Your task to perform on an android device: turn off improve location accuracy Image 0: 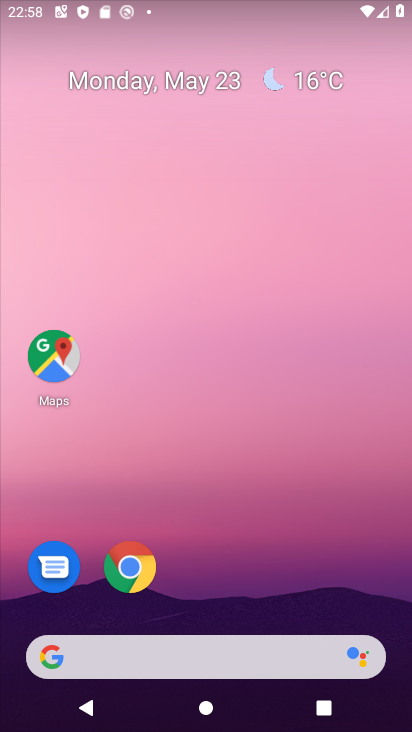
Step 0: drag from (247, 590) to (241, 205)
Your task to perform on an android device: turn off improve location accuracy Image 1: 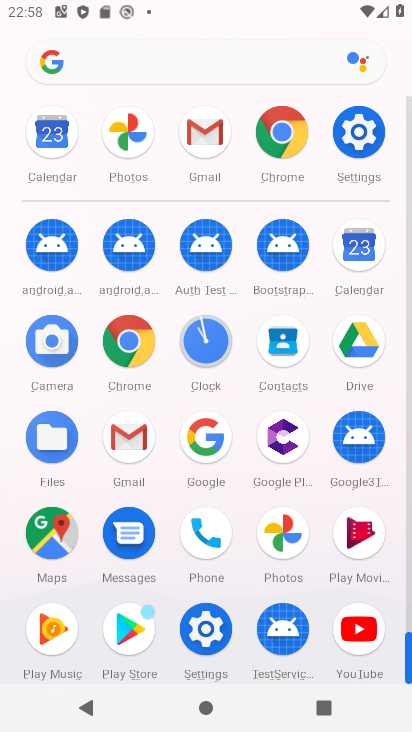
Step 1: click (349, 154)
Your task to perform on an android device: turn off improve location accuracy Image 2: 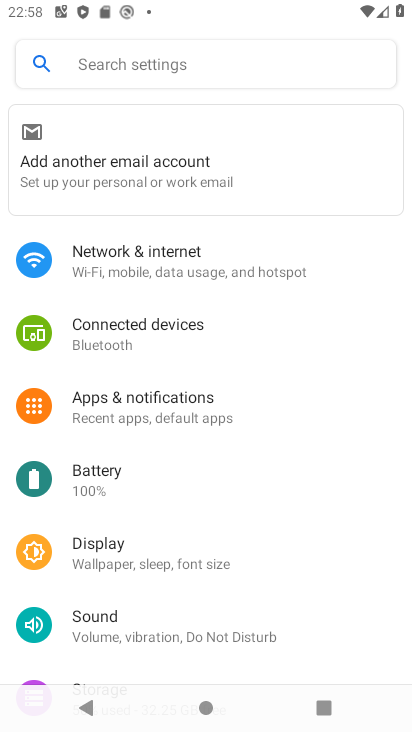
Step 2: drag from (196, 583) to (243, 59)
Your task to perform on an android device: turn off improve location accuracy Image 3: 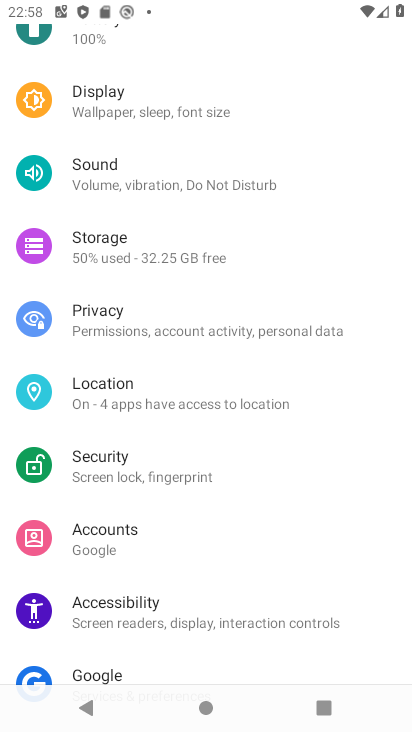
Step 3: drag from (163, 631) to (175, 97)
Your task to perform on an android device: turn off improve location accuracy Image 4: 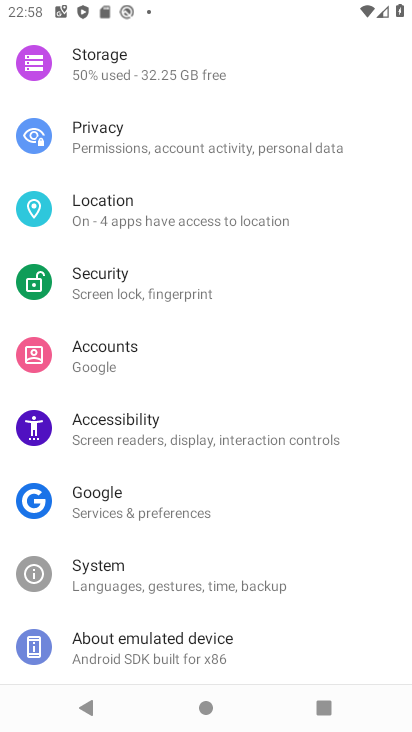
Step 4: click (124, 223)
Your task to perform on an android device: turn off improve location accuracy Image 5: 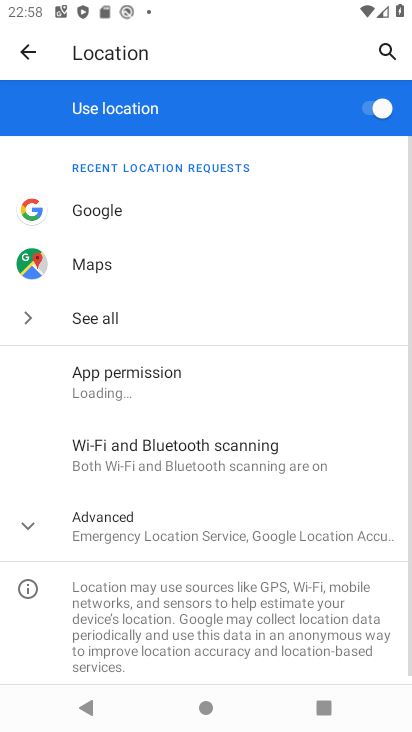
Step 5: drag from (221, 589) to (218, 289)
Your task to perform on an android device: turn off improve location accuracy Image 6: 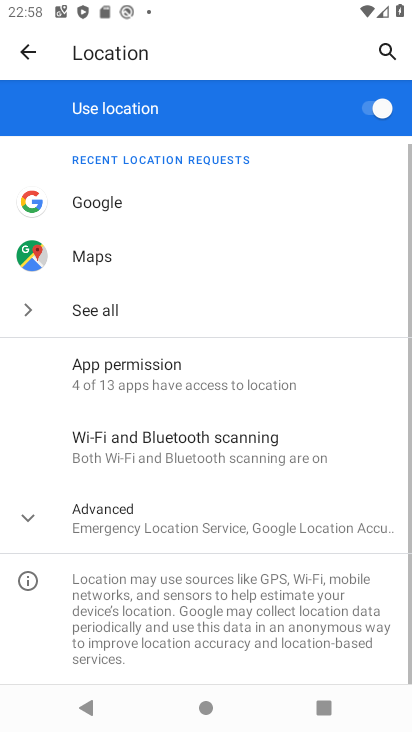
Step 6: click (133, 508)
Your task to perform on an android device: turn off improve location accuracy Image 7: 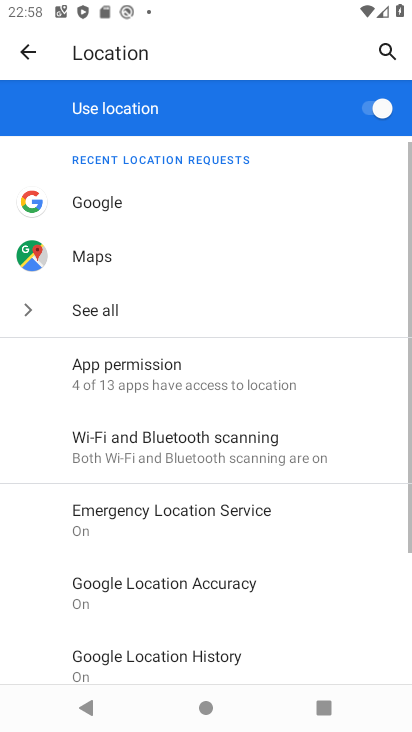
Step 7: drag from (205, 500) to (270, 146)
Your task to perform on an android device: turn off improve location accuracy Image 8: 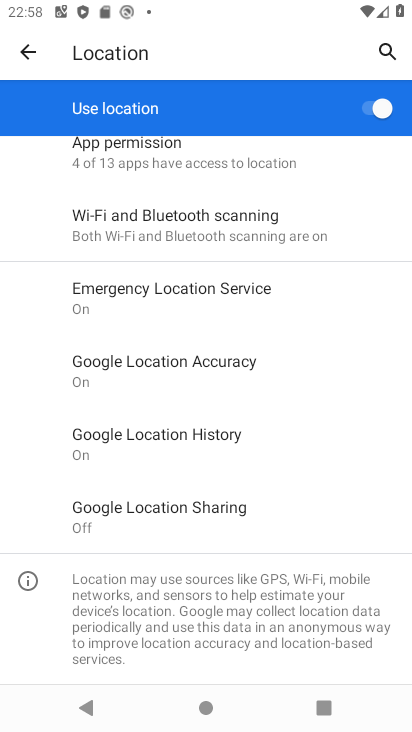
Step 8: click (164, 383)
Your task to perform on an android device: turn off improve location accuracy Image 9: 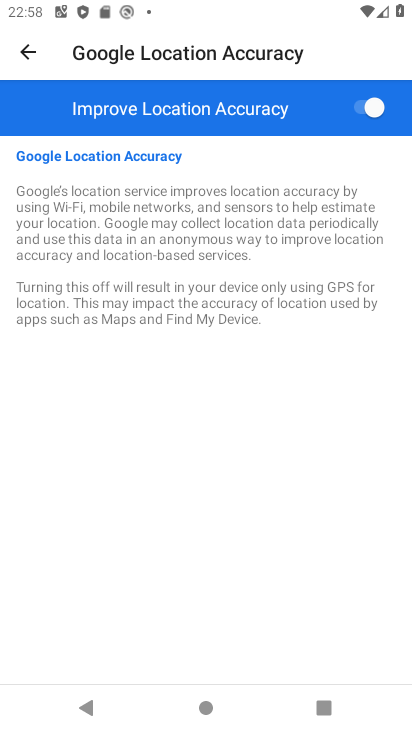
Step 9: click (369, 122)
Your task to perform on an android device: turn off improve location accuracy Image 10: 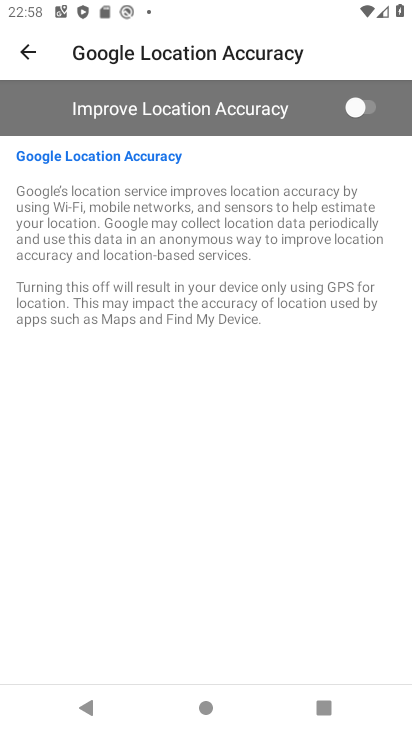
Step 10: task complete